Your task to perform on an android device: Search for Mexican restaurants on Maps Image 0: 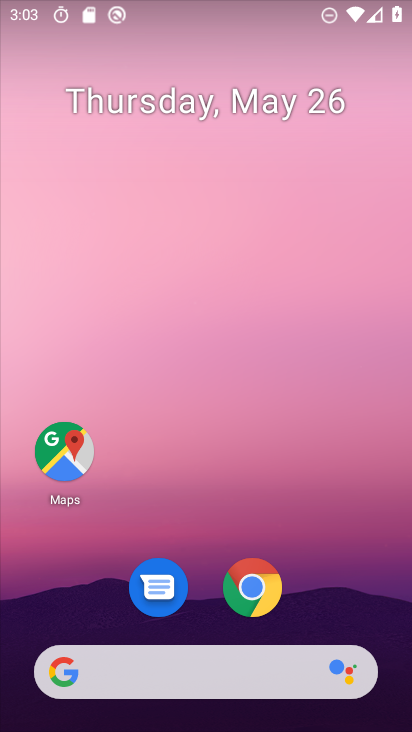
Step 0: click (65, 450)
Your task to perform on an android device: Search for Mexican restaurants on Maps Image 1: 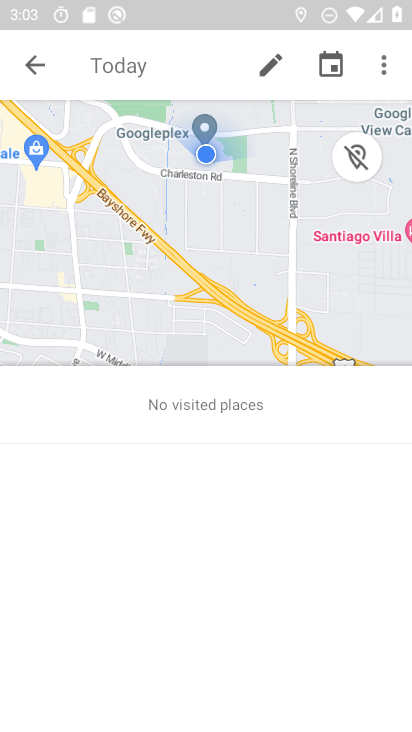
Step 1: click (36, 56)
Your task to perform on an android device: Search for Mexican restaurants on Maps Image 2: 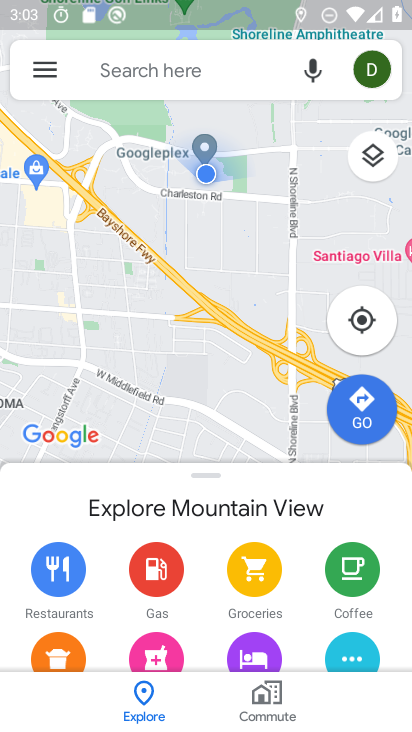
Step 2: click (188, 59)
Your task to perform on an android device: Search for Mexican restaurants on Maps Image 3: 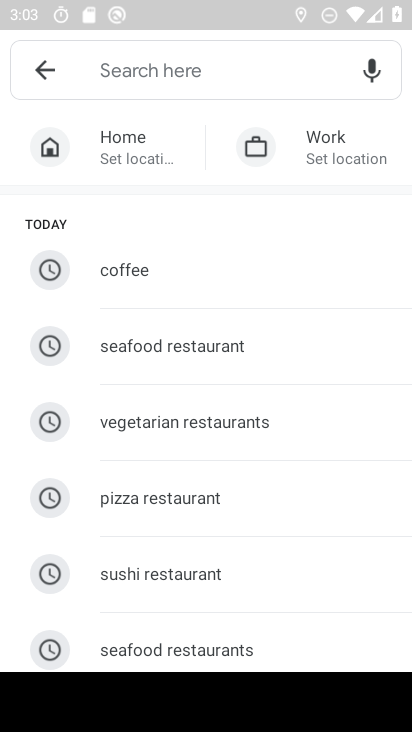
Step 3: type "mexican restaurants"
Your task to perform on an android device: Search for Mexican restaurants on Maps Image 4: 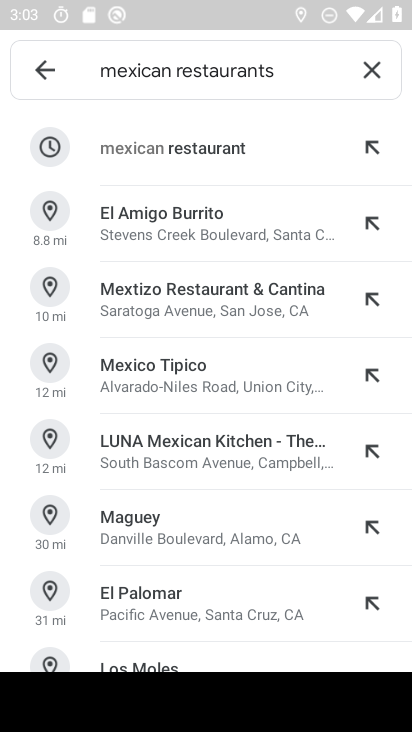
Step 4: press enter
Your task to perform on an android device: Search for Mexican restaurants on Maps Image 5: 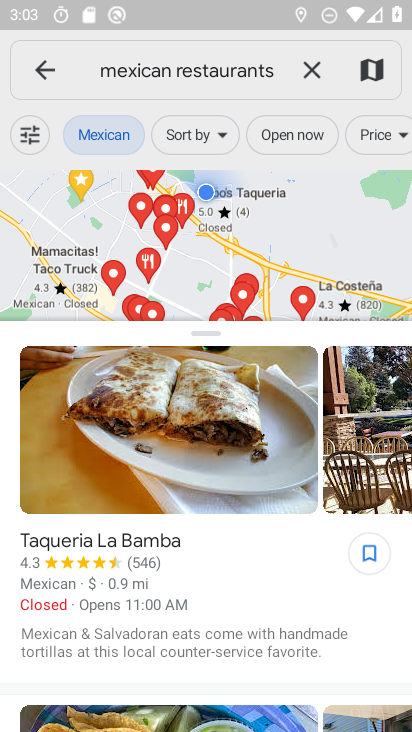
Step 5: task complete